Your task to perform on an android device: Go to privacy settings Image 0: 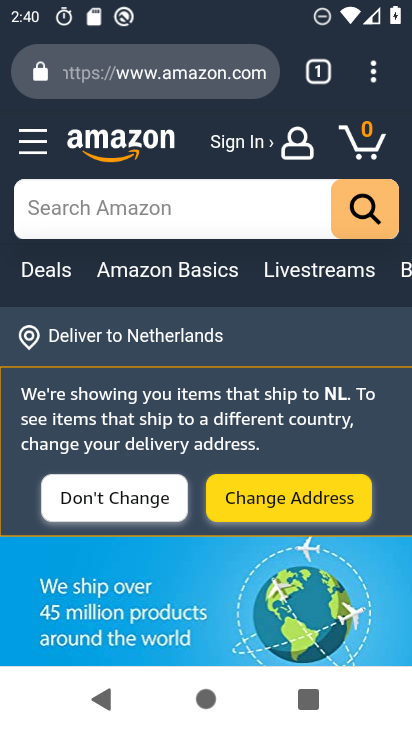
Step 0: press home button
Your task to perform on an android device: Go to privacy settings Image 1: 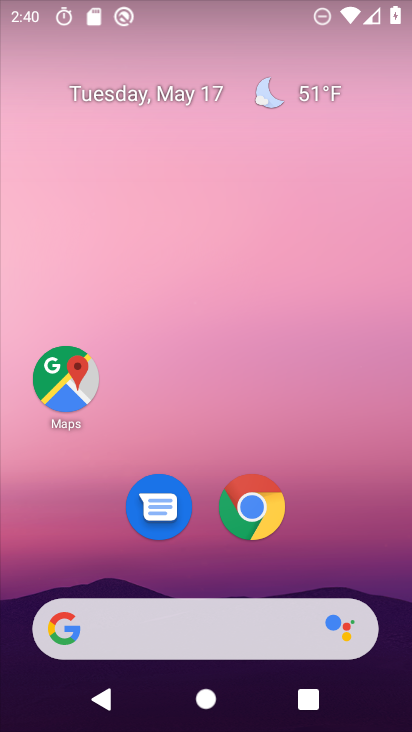
Step 1: click (255, 507)
Your task to perform on an android device: Go to privacy settings Image 2: 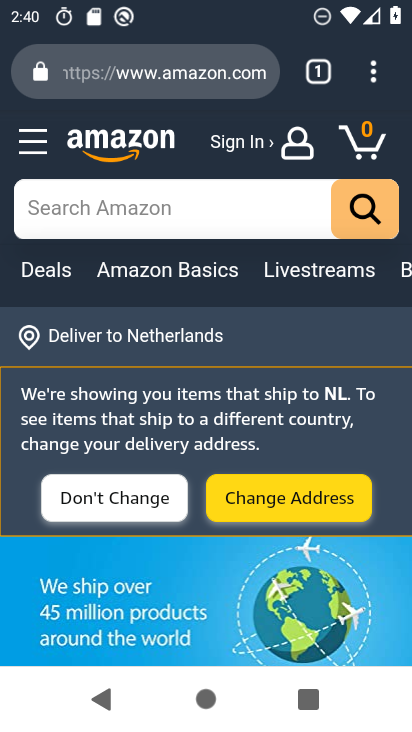
Step 2: click (361, 75)
Your task to perform on an android device: Go to privacy settings Image 3: 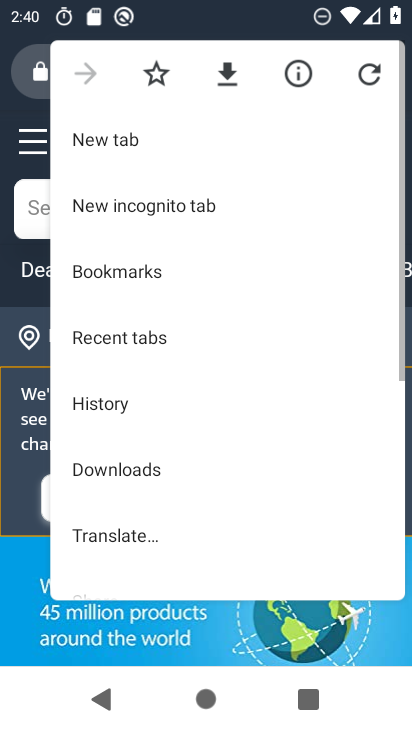
Step 3: drag from (138, 508) to (182, 212)
Your task to perform on an android device: Go to privacy settings Image 4: 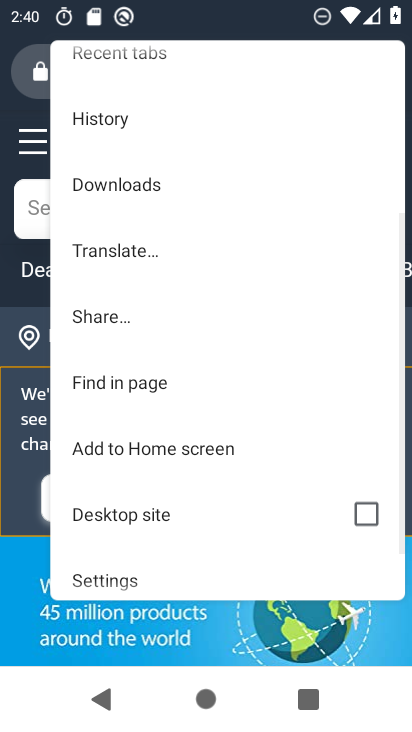
Step 4: drag from (141, 524) to (152, 385)
Your task to perform on an android device: Go to privacy settings Image 5: 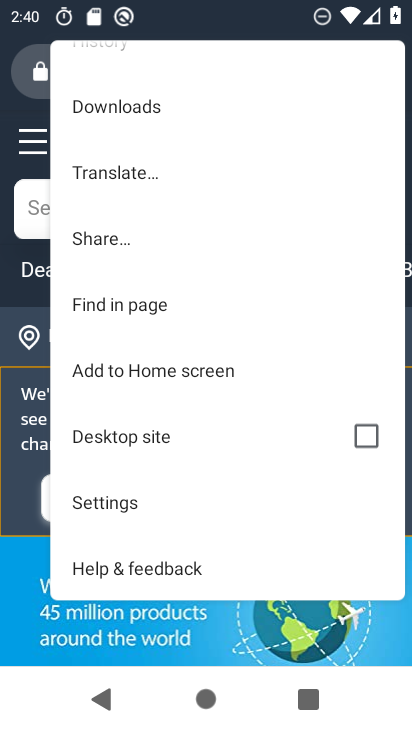
Step 5: click (150, 498)
Your task to perform on an android device: Go to privacy settings Image 6: 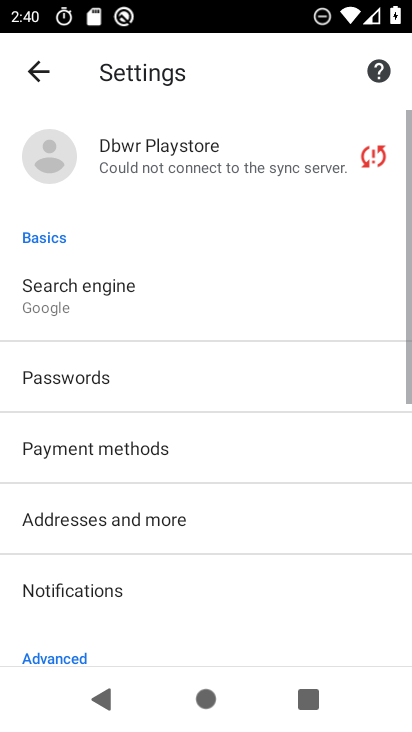
Step 6: drag from (211, 524) to (208, 247)
Your task to perform on an android device: Go to privacy settings Image 7: 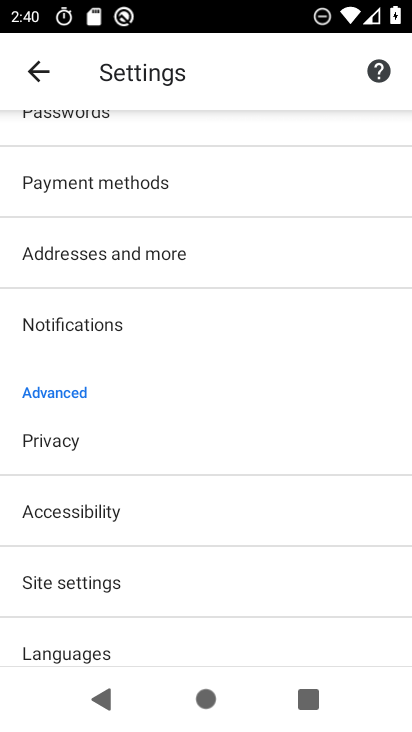
Step 7: click (124, 448)
Your task to perform on an android device: Go to privacy settings Image 8: 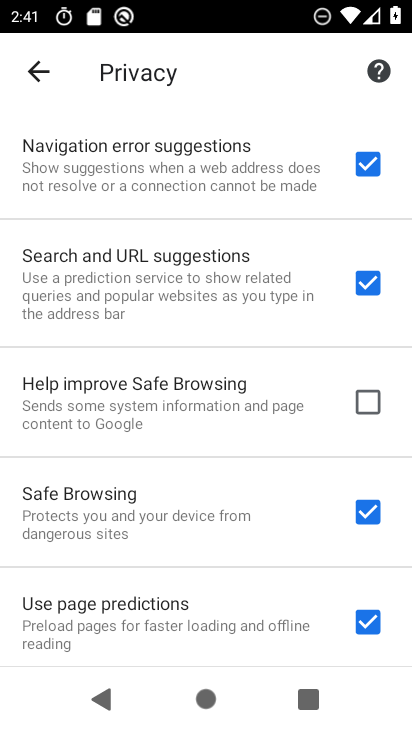
Step 8: task complete